Your task to perform on an android device: turn on wifi Image 0: 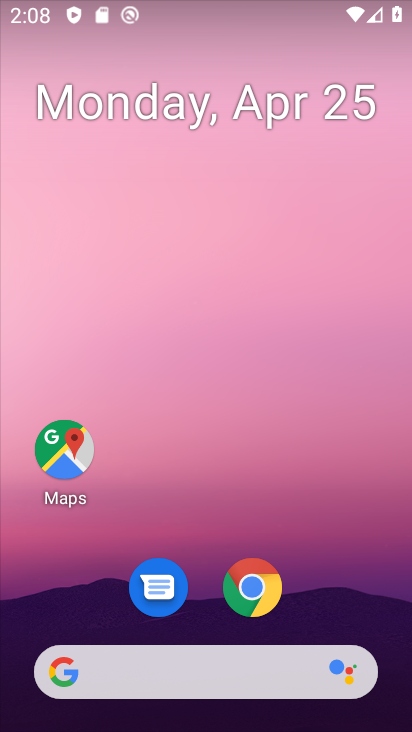
Step 0: drag from (327, 2) to (296, 354)
Your task to perform on an android device: turn on wifi Image 1: 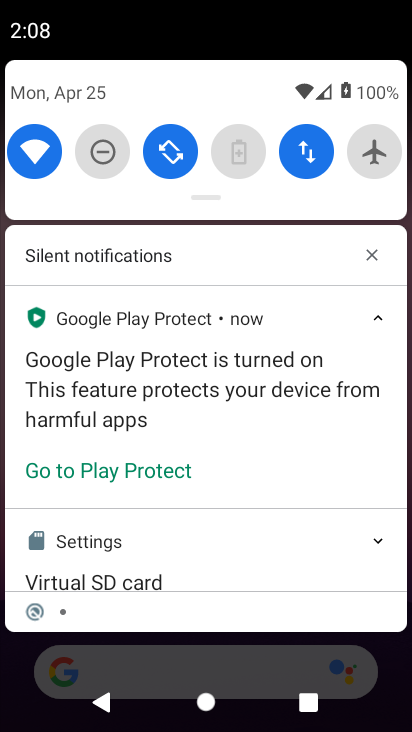
Step 1: task complete